Your task to perform on an android device: Search for Italian restaurants on Maps Image 0: 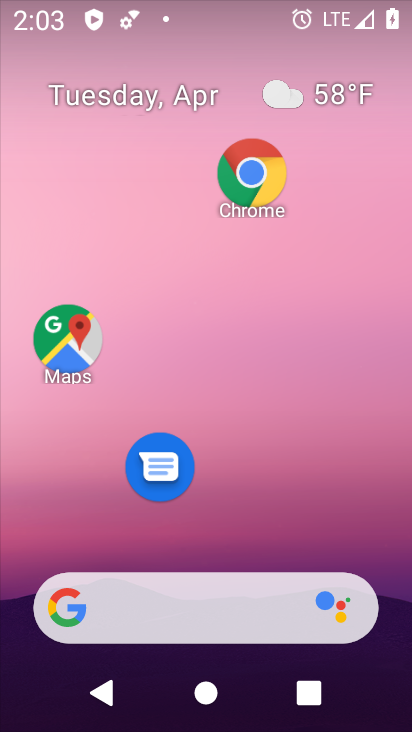
Step 0: drag from (286, 587) to (301, 29)
Your task to perform on an android device: Search for Italian restaurants on Maps Image 1: 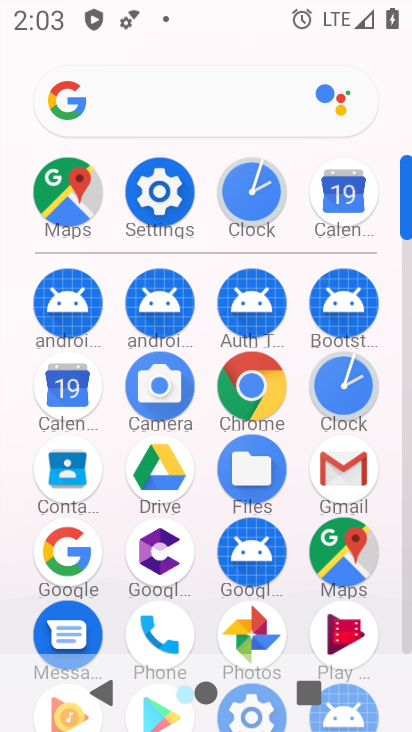
Step 1: click (354, 557)
Your task to perform on an android device: Search for Italian restaurants on Maps Image 2: 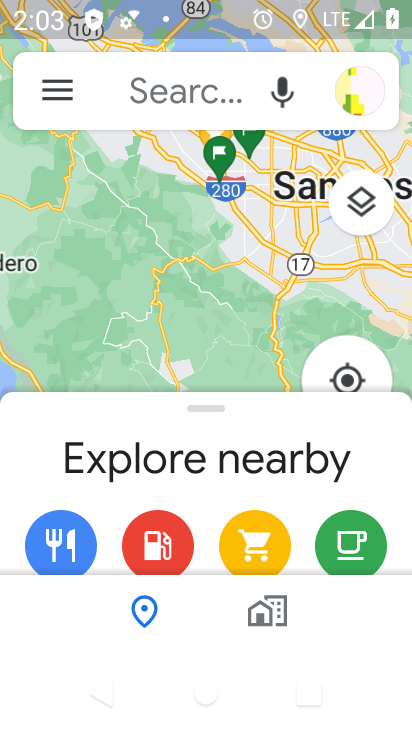
Step 2: click (235, 93)
Your task to perform on an android device: Search for Italian restaurants on Maps Image 3: 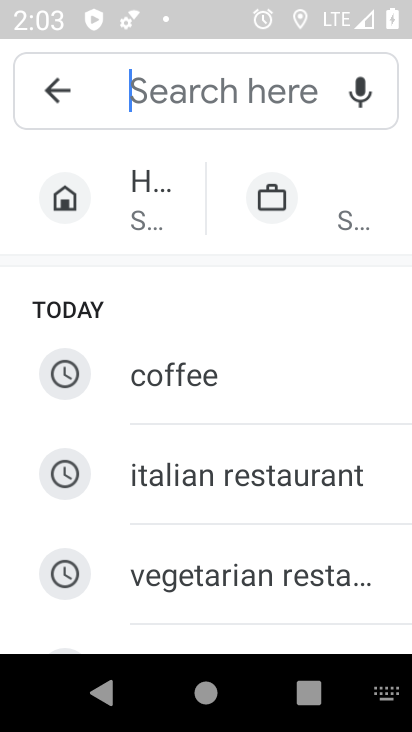
Step 3: click (224, 101)
Your task to perform on an android device: Search for Italian restaurants on Maps Image 4: 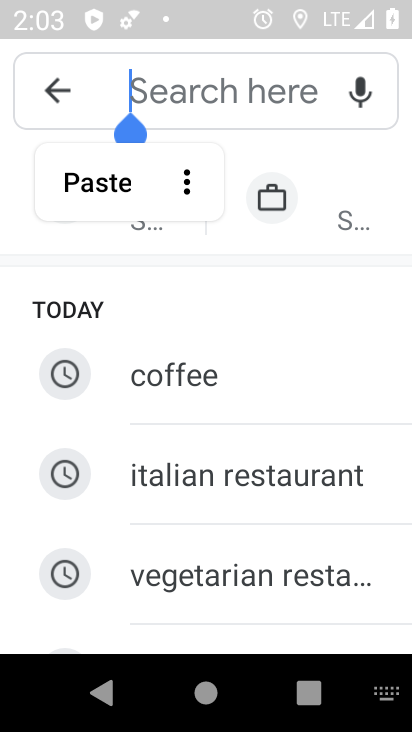
Step 4: click (200, 74)
Your task to perform on an android device: Search for Italian restaurants on Maps Image 5: 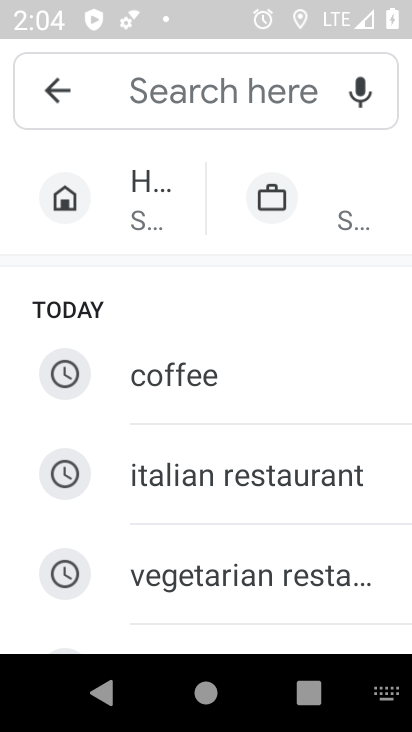
Step 5: type "italian"
Your task to perform on an android device: Search for Italian restaurants on Maps Image 6: 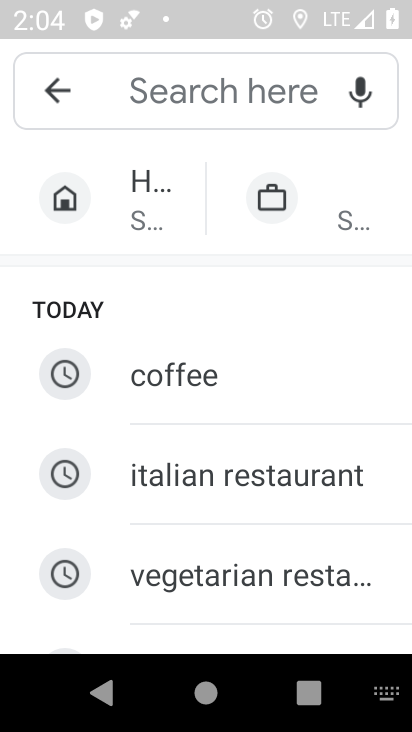
Step 6: click (255, 502)
Your task to perform on an android device: Search for Italian restaurants on Maps Image 7: 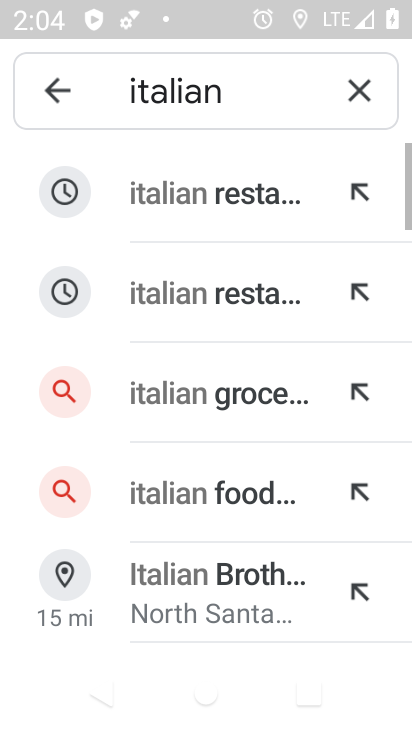
Step 7: click (219, 173)
Your task to perform on an android device: Search for Italian restaurants on Maps Image 8: 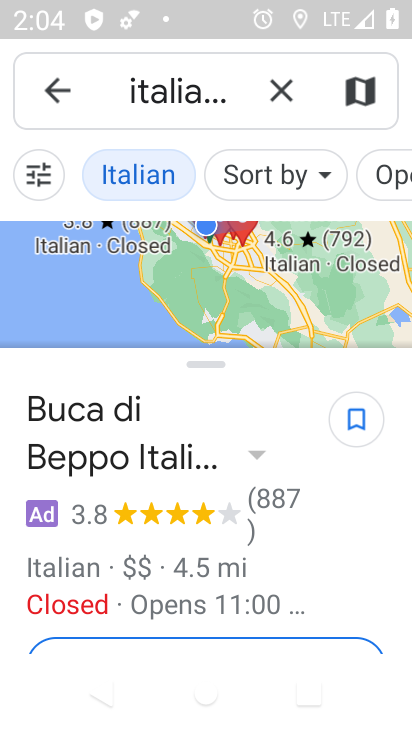
Step 8: task complete